Your task to perform on an android device: toggle priority inbox in the gmail app Image 0: 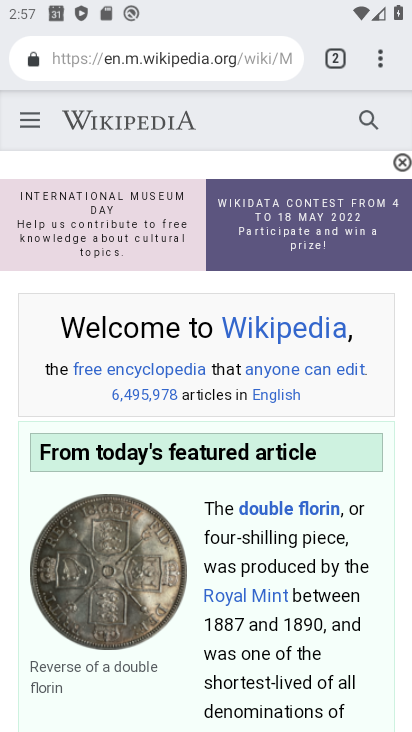
Step 0: press home button
Your task to perform on an android device: toggle priority inbox in the gmail app Image 1: 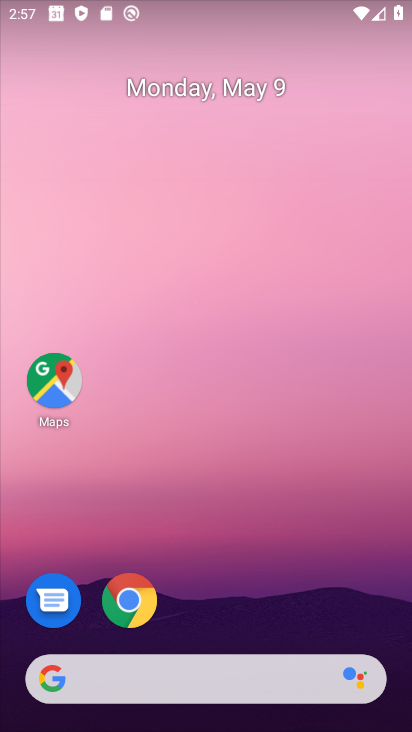
Step 1: drag from (205, 725) to (205, 173)
Your task to perform on an android device: toggle priority inbox in the gmail app Image 2: 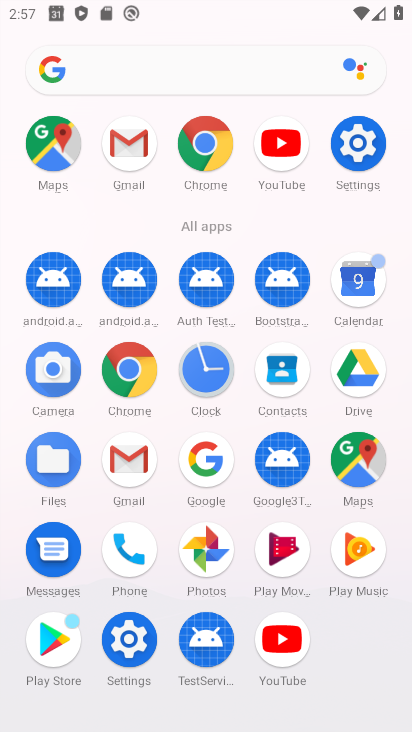
Step 2: click (126, 458)
Your task to perform on an android device: toggle priority inbox in the gmail app Image 3: 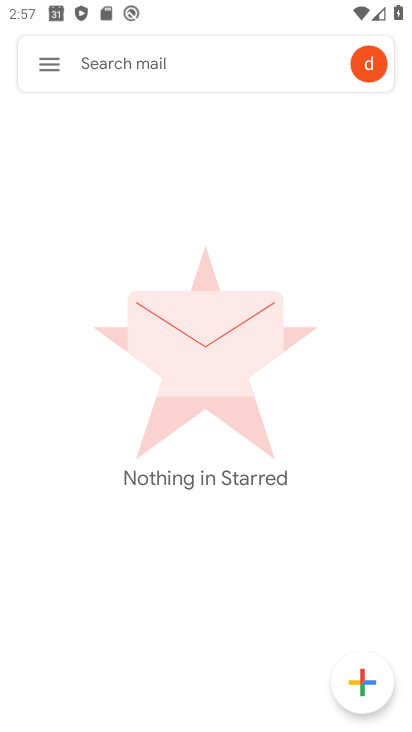
Step 3: click (52, 61)
Your task to perform on an android device: toggle priority inbox in the gmail app Image 4: 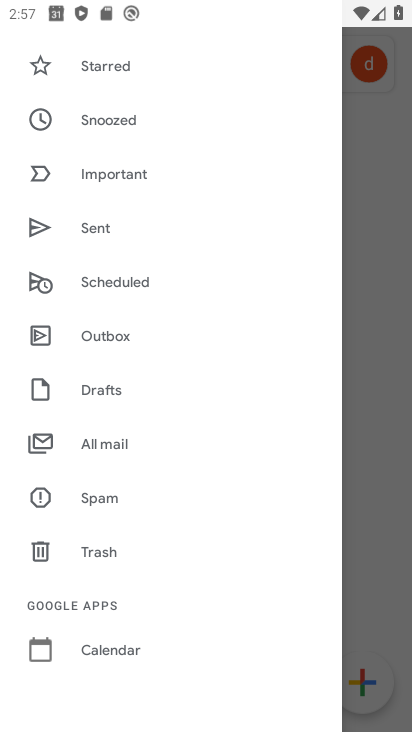
Step 4: drag from (148, 626) to (164, 346)
Your task to perform on an android device: toggle priority inbox in the gmail app Image 5: 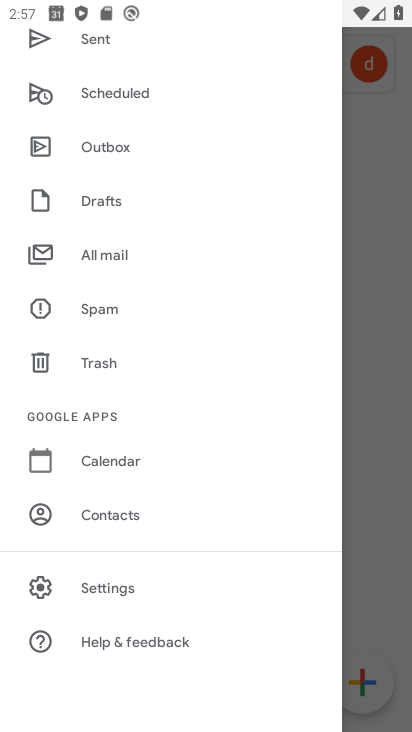
Step 5: click (105, 589)
Your task to perform on an android device: toggle priority inbox in the gmail app Image 6: 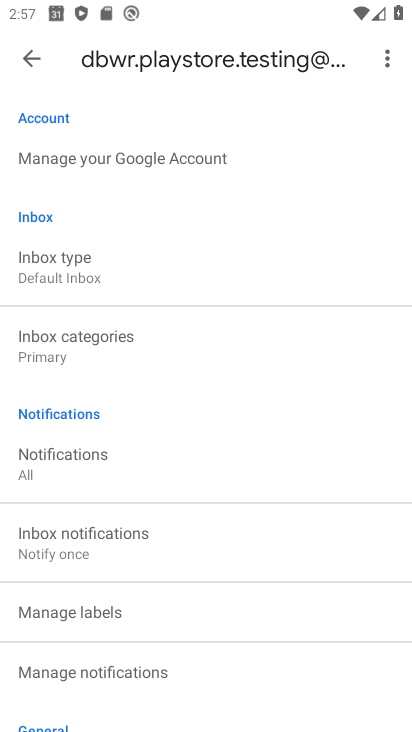
Step 6: click (73, 266)
Your task to perform on an android device: toggle priority inbox in the gmail app Image 7: 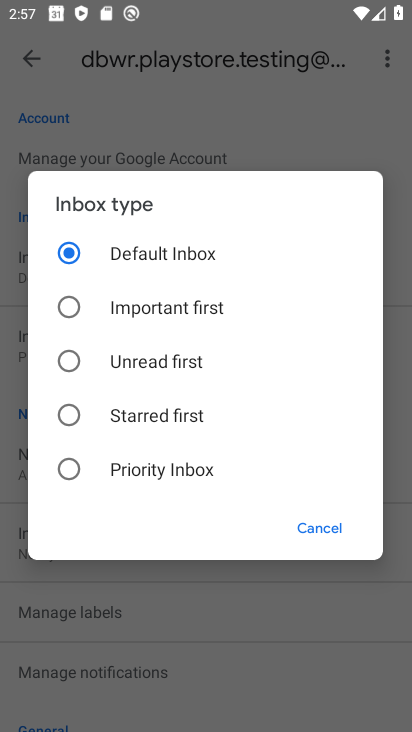
Step 7: click (66, 465)
Your task to perform on an android device: toggle priority inbox in the gmail app Image 8: 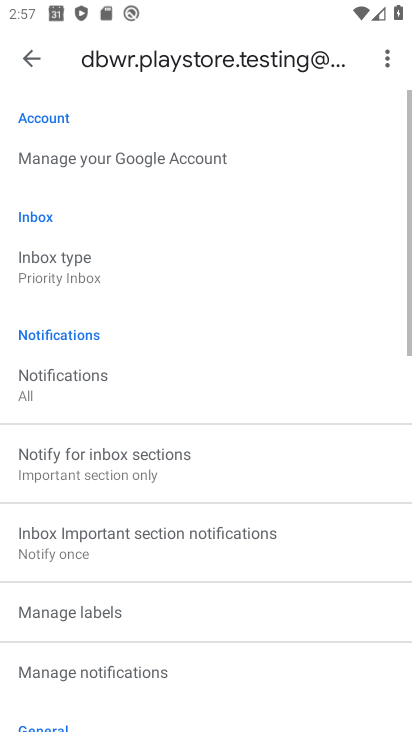
Step 8: task complete